Your task to perform on an android device: turn off notifications in google photos Image 0: 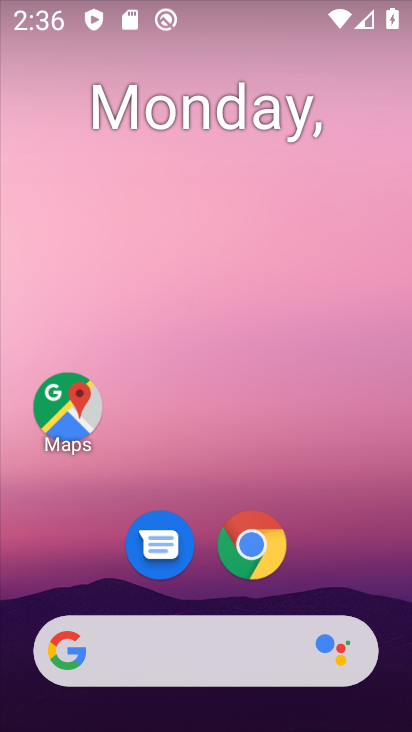
Step 0: drag from (199, 543) to (256, 80)
Your task to perform on an android device: turn off notifications in google photos Image 1: 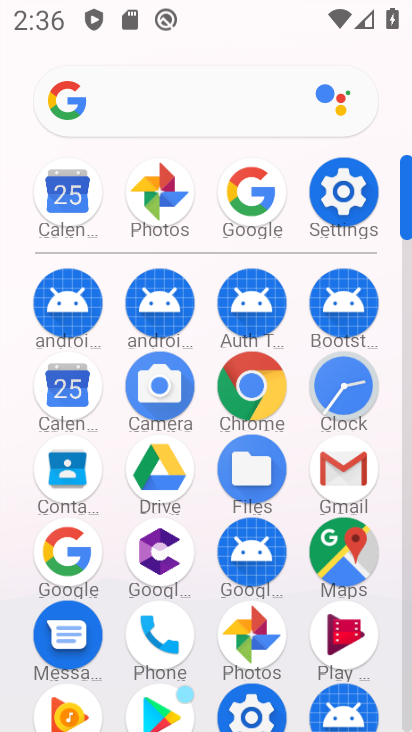
Step 1: click (346, 181)
Your task to perform on an android device: turn off notifications in google photos Image 2: 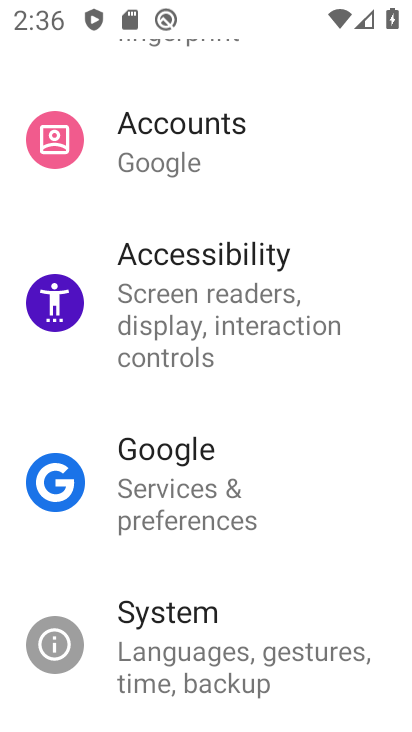
Step 2: press home button
Your task to perform on an android device: turn off notifications in google photos Image 3: 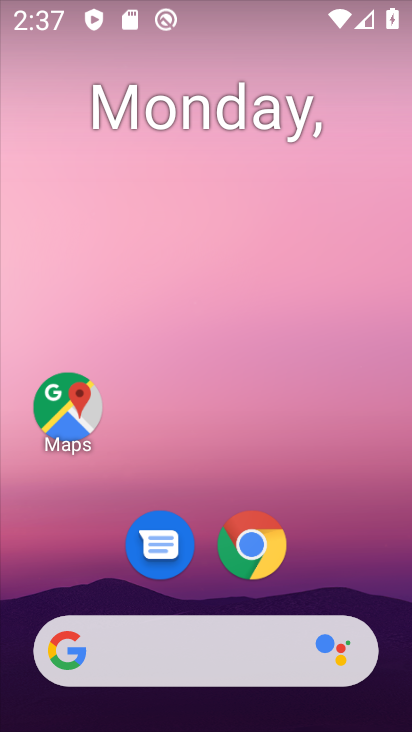
Step 3: drag from (203, 549) to (271, 100)
Your task to perform on an android device: turn off notifications in google photos Image 4: 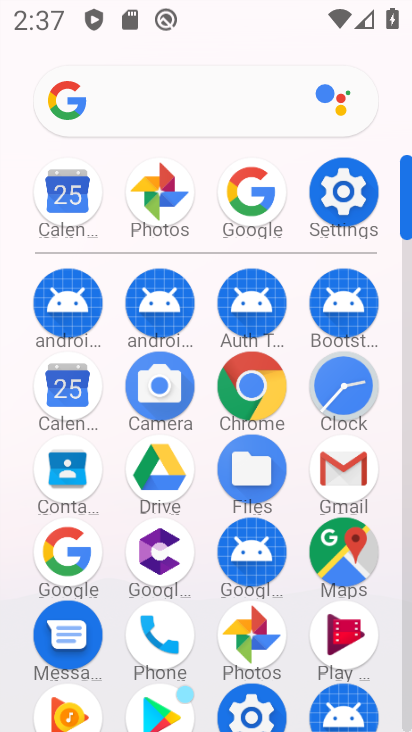
Step 4: click (236, 630)
Your task to perform on an android device: turn off notifications in google photos Image 5: 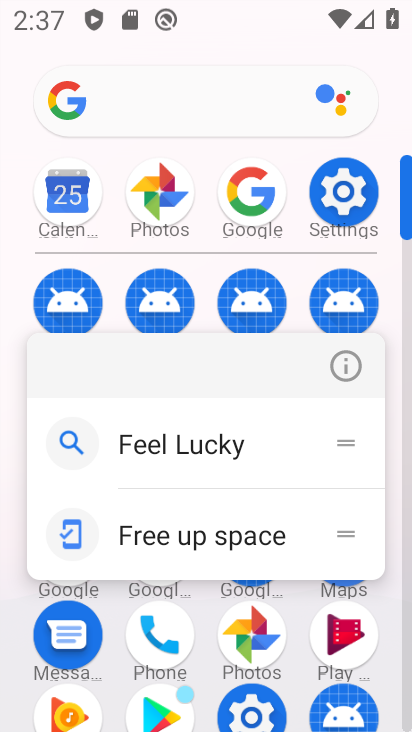
Step 5: click (347, 368)
Your task to perform on an android device: turn off notifications in google photos Image 6: 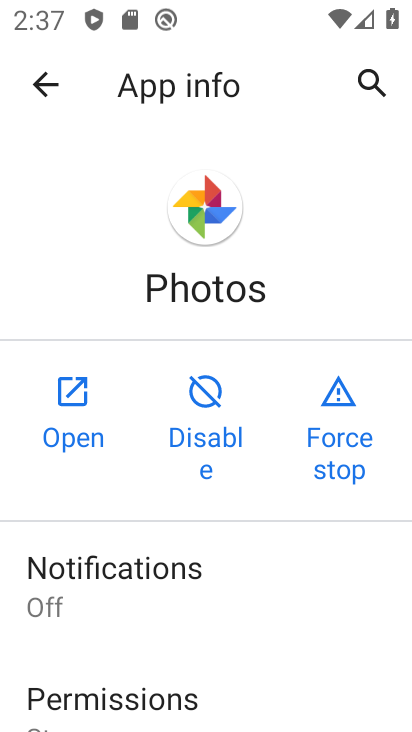
Step 6: click (129, 567)
Your task to perform on an android device: turn off notifications in google photos Image 7: 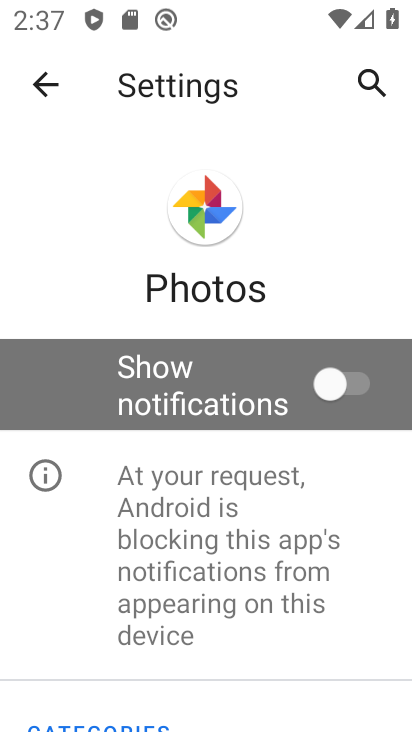
Step 7: task complete